Your task to perform on an android device: Open calendar and show me the second week of next month Image 0: 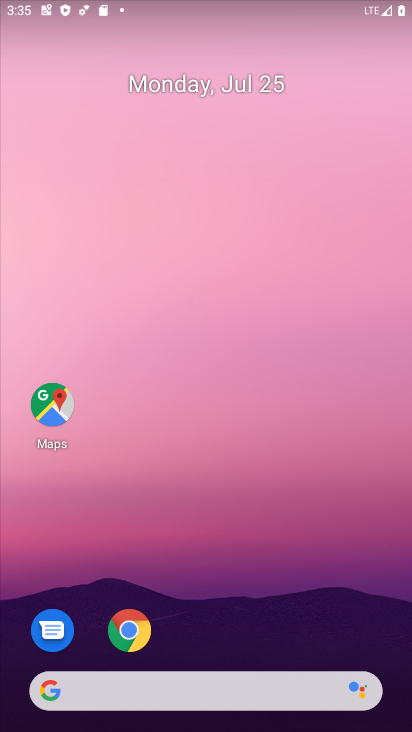
Step 0: drag from (189, 631) to (328, 0)
Your task to perform on an android device: Open calendar and show me the second week of next month Image 1: 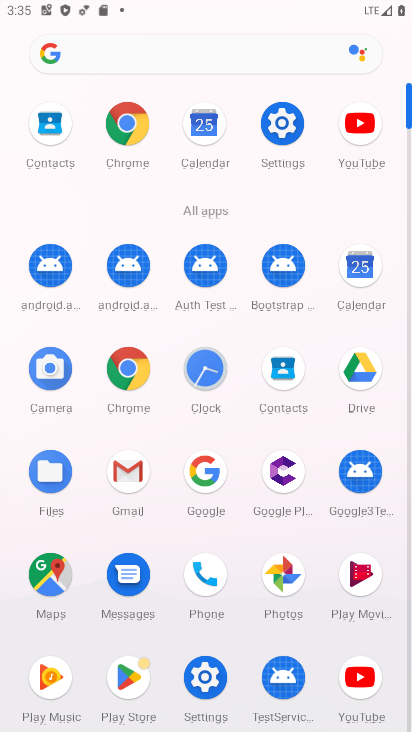
Step 1: click (370, 273)
Your task to perform on an android device: Open calendar and show me the second week of next month Image 2: 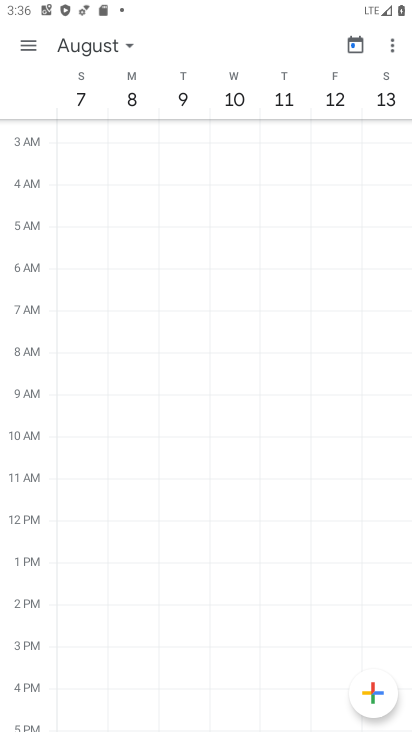
Step 2: task complete